Your task to perform on an android device: create a new album in the google photos Image 0: 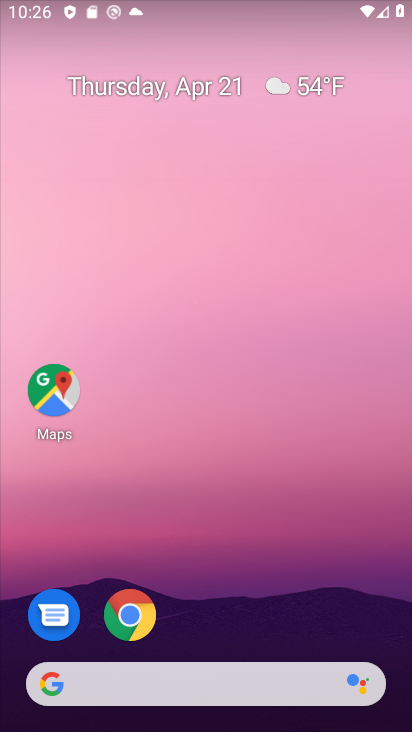
Step 0: drag from (283, 633) to (251, 57)
Your task to perform on an android device: create a new album in the google photos Image 1: 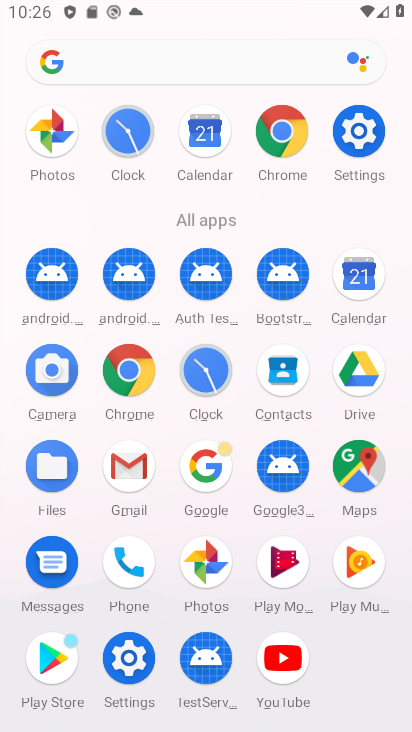
Step 1: click (199, 556)
Your task to perform on an android device: create a new album in the google photos Image 2: 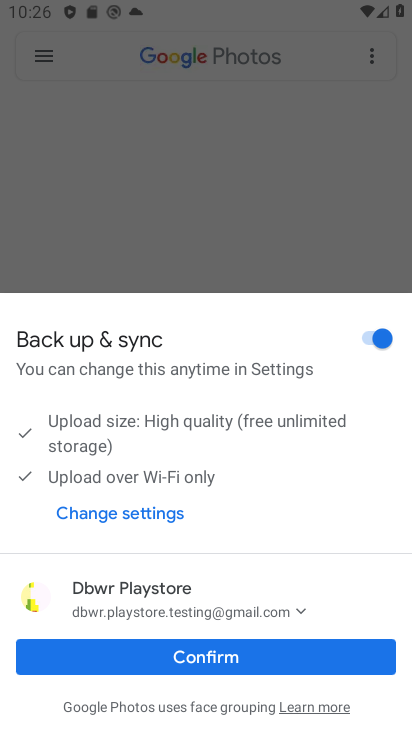
Step 2: click (231, 660)
Your task to perform on an android device: create a new album in the google photos Image 3: 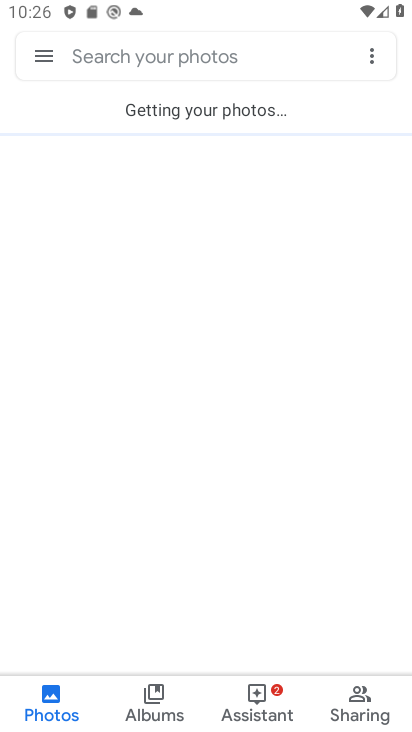
Step 3: click (140, 692)
Your task to perform on an android device: create a new album in the google photos Image 4: 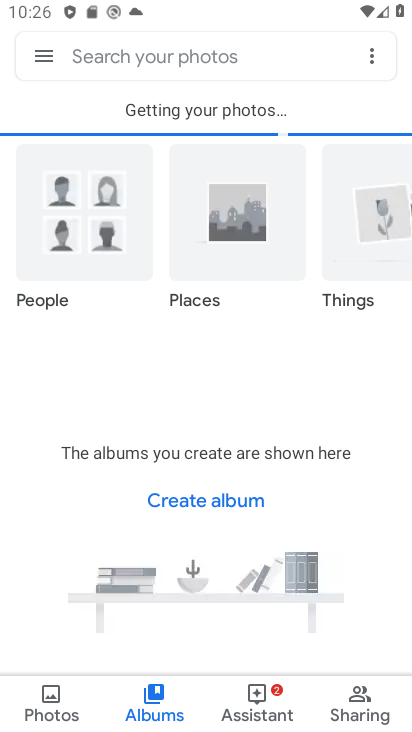
Step 4: click (370, 55)
Your task to perform on an android device: create a new album in the google photos Image 5: 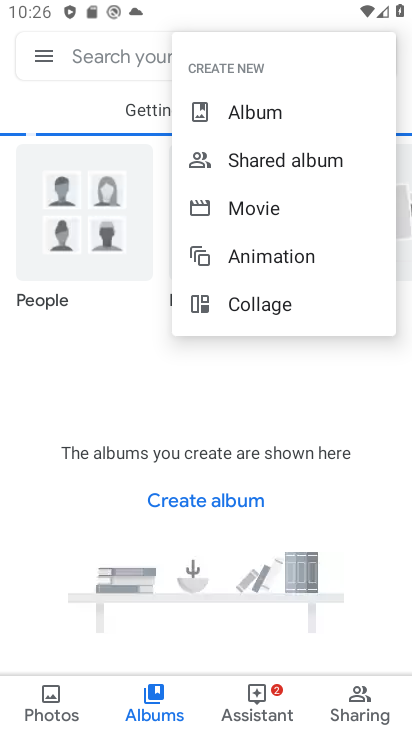
Step 5: click (302, 122)
Your task to perform on an android device: create a new album in the google photos Image 6: 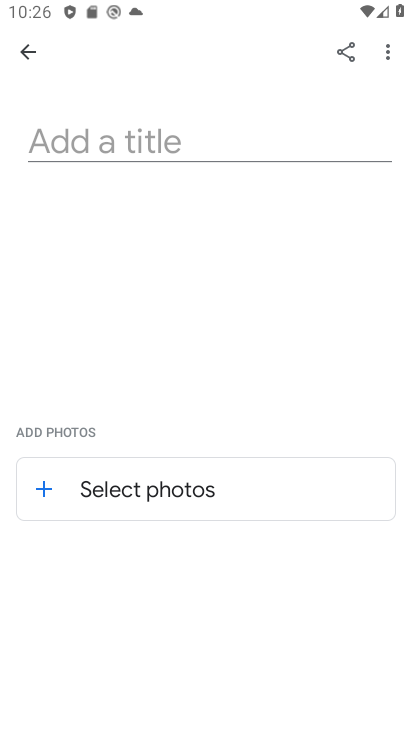
Step 6: click (83, 128)
Your task to perform on an android device: create a new album in the google photos Image 7: 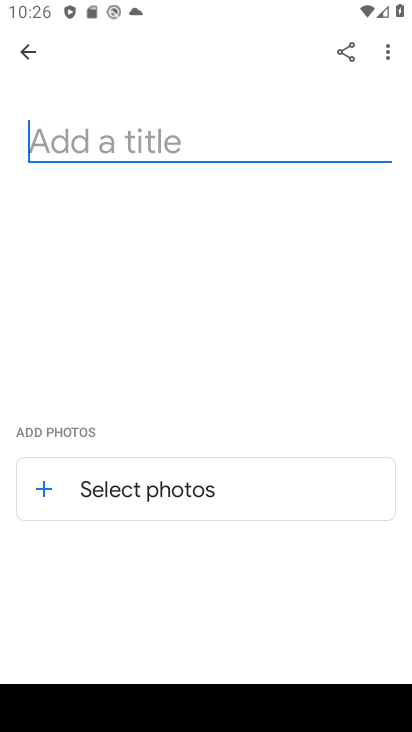
Step 7: type "sdfghjkbvcnmz"
Your task to perform on an android device: create a new album in the google photos Image 8: 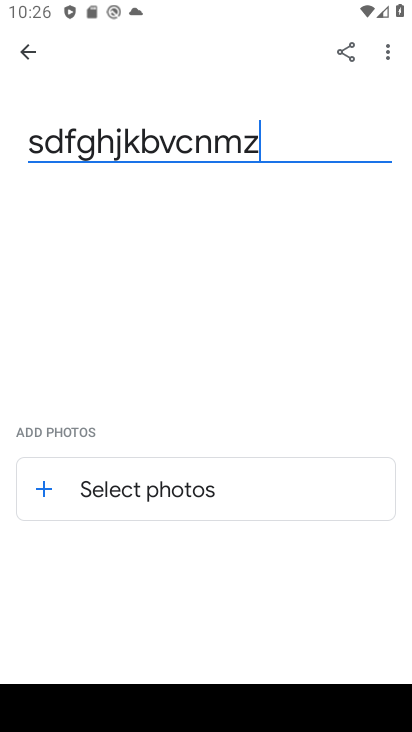
Step 8: click (82, 483)
Your task to perform on an android device: create a new album in the google photos Image 9: 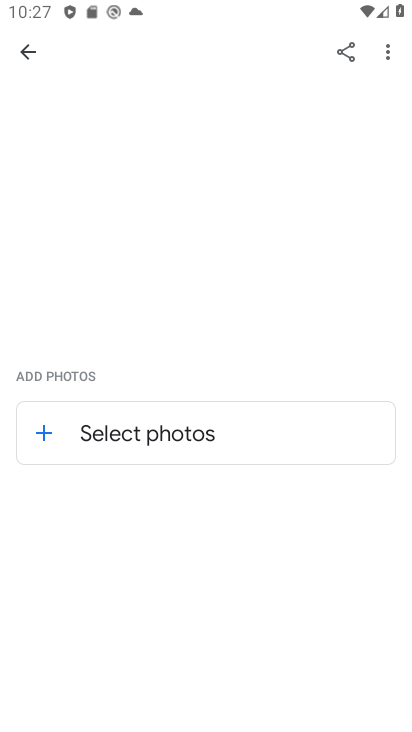
Step 9: click (32, 429)
Your task to perform on an android device: create a new album in the google photos Image 10: 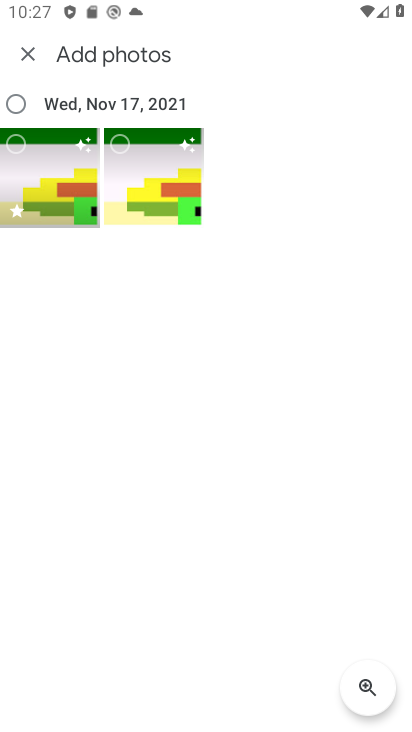
Step 10: click (72, 164)
Your task to perform on an android device: create a new album in the google photos Image 11: 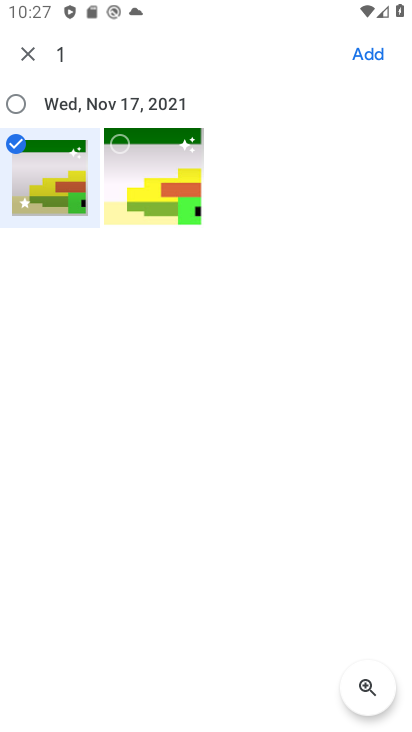
Step 11: click (386, 53)
Your task to perform on an android device: create a new album in the google photos Image 12: 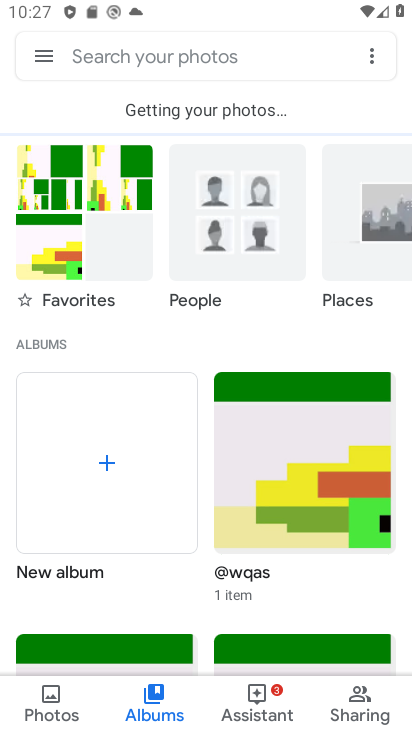
Step 12: task complete